Your task to perform on an android device: turn off translation in the chrome app Image 0: 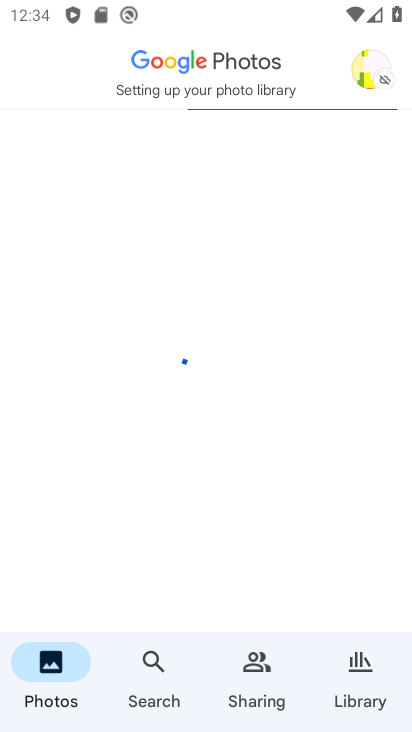
Step 0: press home button
Your task to perform on an android device: turn off translation in the chrome app Image 1: 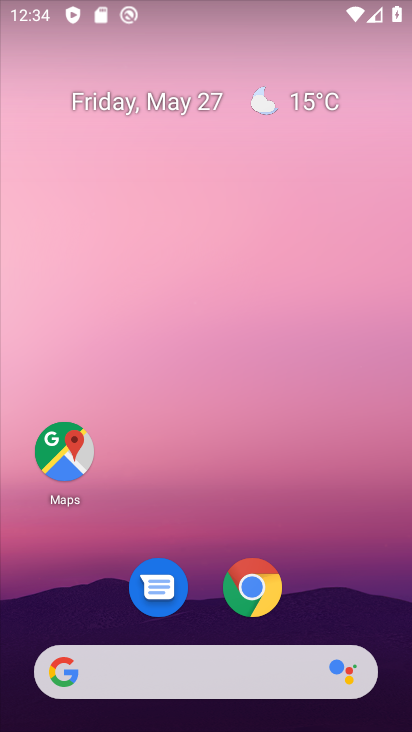
Step 1: click (252, 588)
Your task to perform on an android device: turn off translation in the chrome app Image 2: 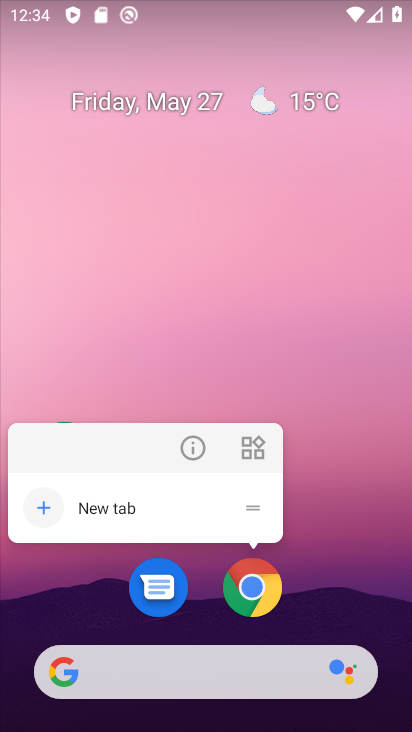
Step 2: click (252, 588)
Your task to perform on an android device: turn off translation in the chrome app Image 3: 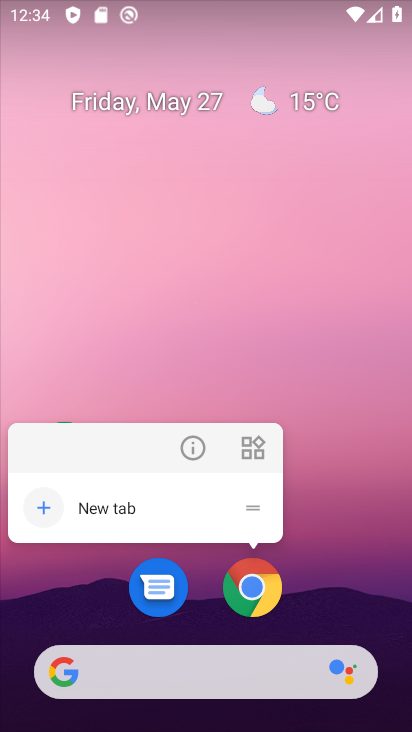
Step 3: click (252, 588)
Your task to perform on an android device: turn off translation in the chrome app Image 4: 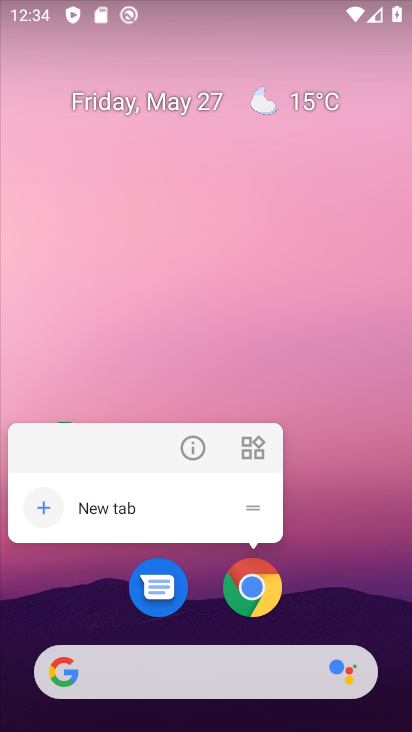
Step 4: click (252, 588)
Your task to perform on an android device: turn off translation in the chrome app Image 5: 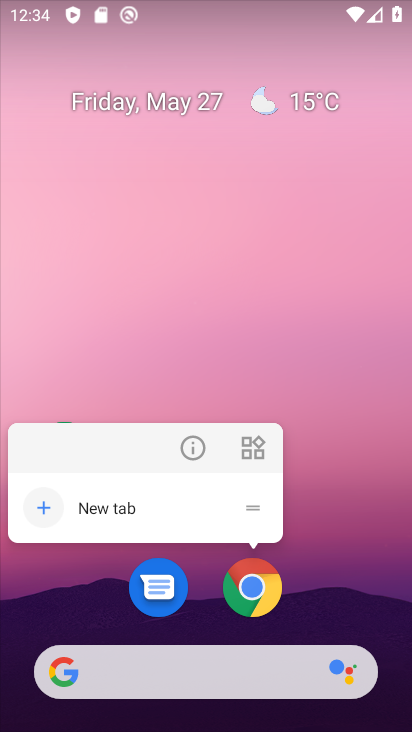
Step 5: click (252, 588)
Your task to perform on an android device: turn off translation in the chrome app Image 6: 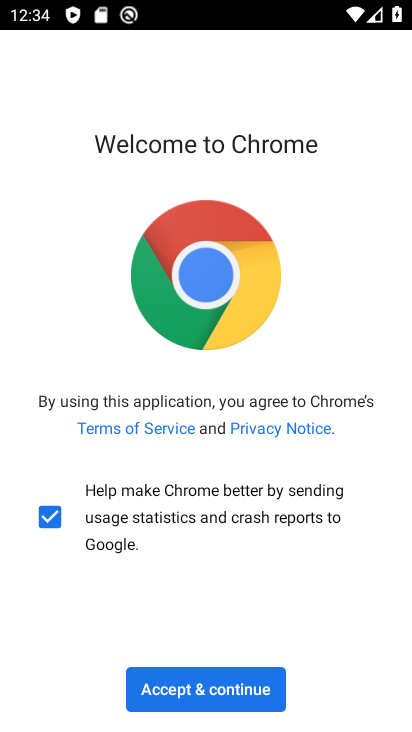
Step 6: click (250, 682)
Your task to perform on an android device: turn off translation in the chrome app Image 7: 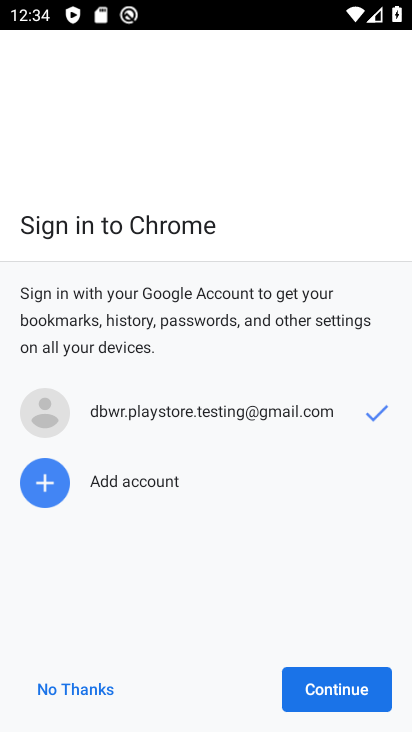
Step 7: click (292, 682)
Your task to perform on an android device: turn off translation in the chrome app Image 8: 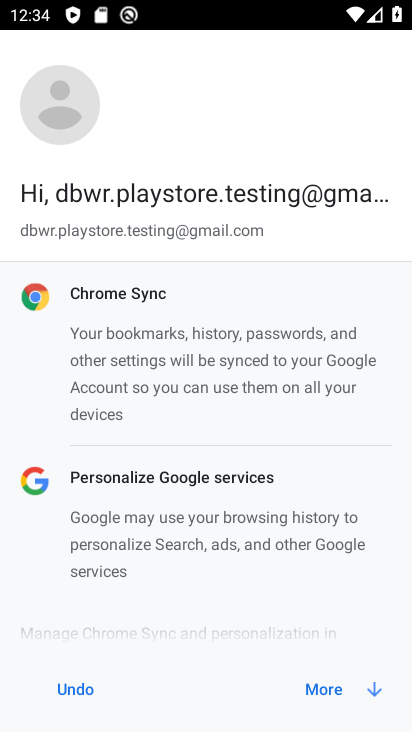
Step 8: click (302, 681)
Your task to perform on an android device: turn off translation in the chrome app Image 9: 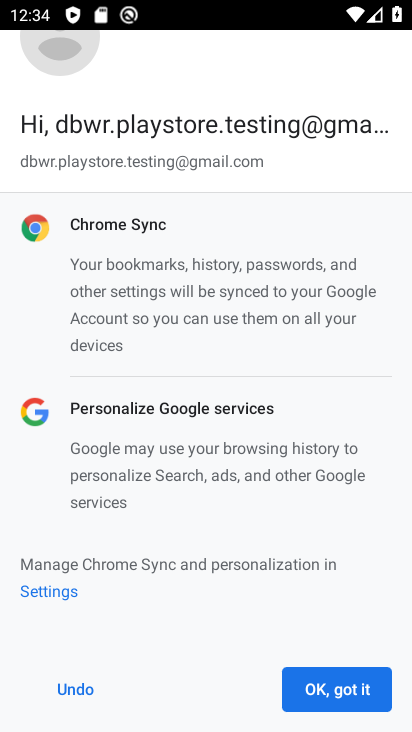
Step 9: click (302, 681)
Your task to perform on an android device: turn off translation in the chrome app Image 10: 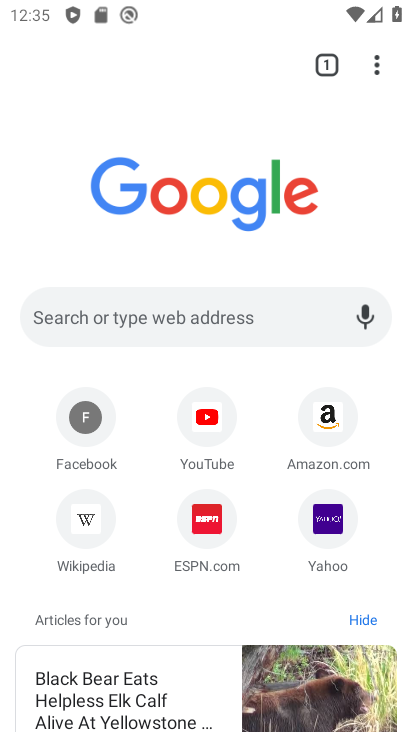
Step 10: click (371, 58)
Your task to perform on an android device: turn off translation in the chrome app Image 11: 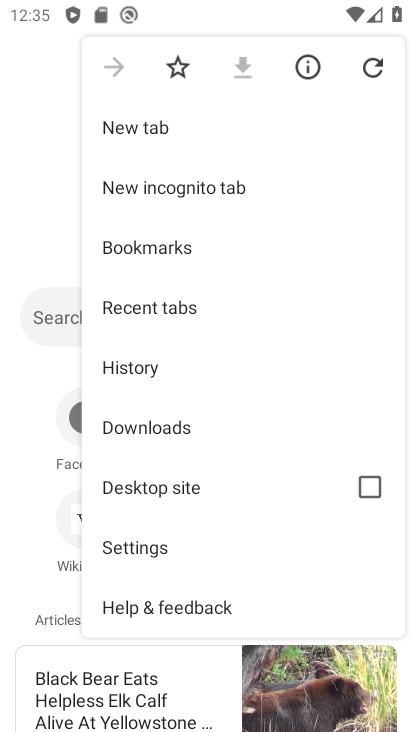
Step 11: click (146, 548)
Your task to perform on an android device: turn off translation in the chrome app Image 12: 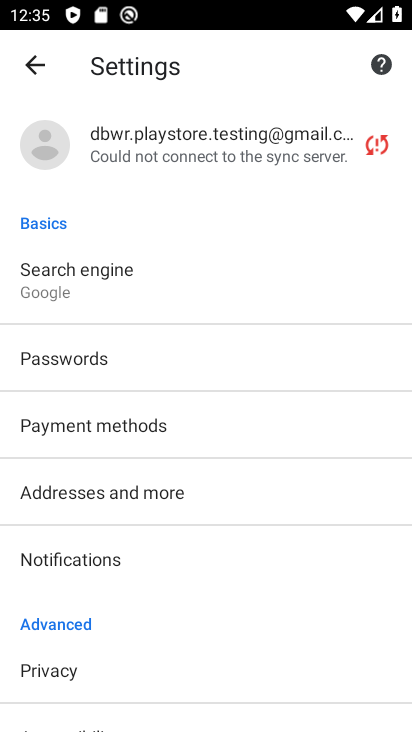
Step 12: drag from (147, 635) to (111, 142)
Your task to perform on an android device: turn off translation in the chrome app Image 13: 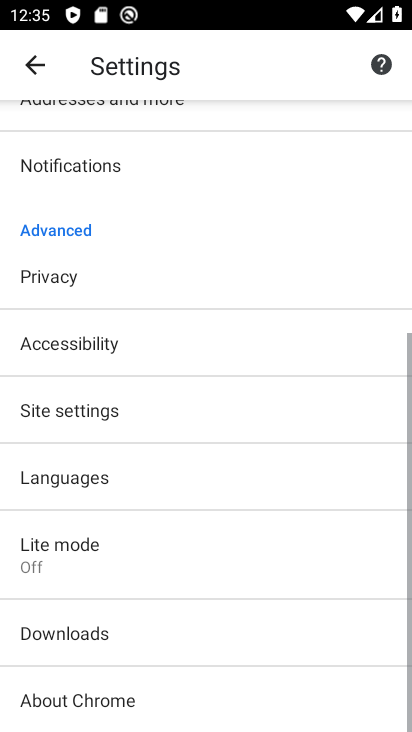
Step 13: click (96, 490)
Your task to perform on an android device: turn off translation in the chrome app Image 14: 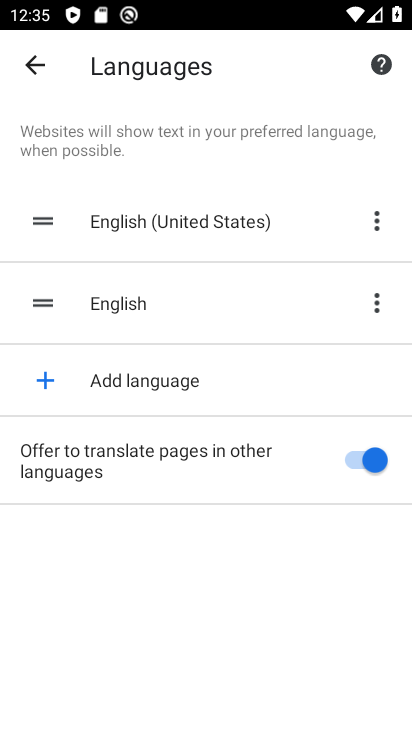
Step 14: click (375, 447)
Your task to perform on an android device: turn off translation in the chrome app Image 15: 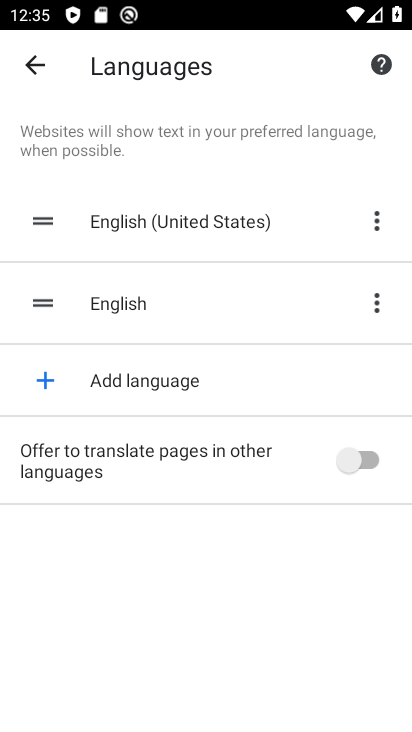
Step 15: task complete